Your task to perform on an android device: move an email to a new category in the gmail app Image 0: 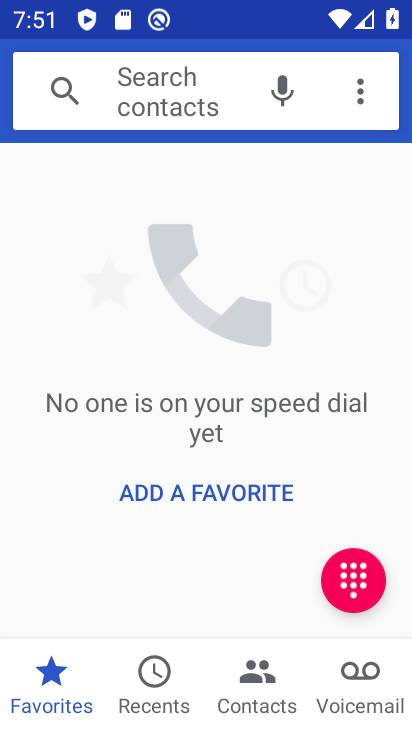
Step 0: press back button
Your task to perform on an android device: move an email to a new category in the gmail app Image 1: 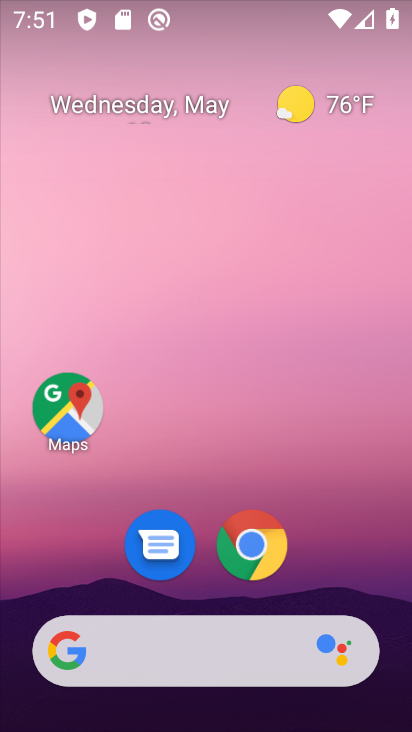
Step 1: drag from (331, 708) to (70, 21)
Your task to perform on an android device: move an email to a new category in the gmail app Image 2: 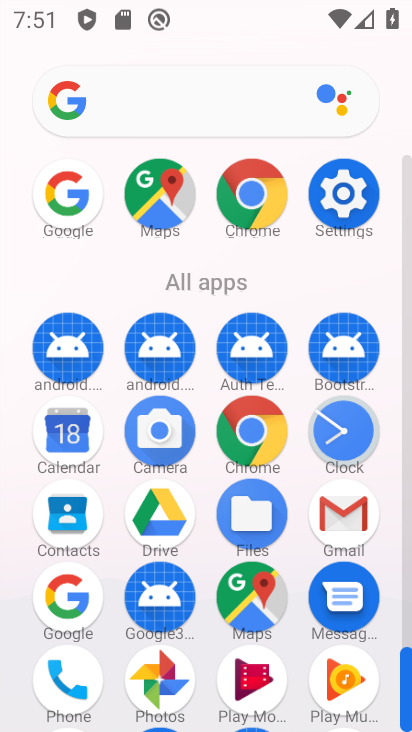
Step 2: click (336, 513)
Your task to perform on an android device: move an email to a new category in the gmail app Image 3: 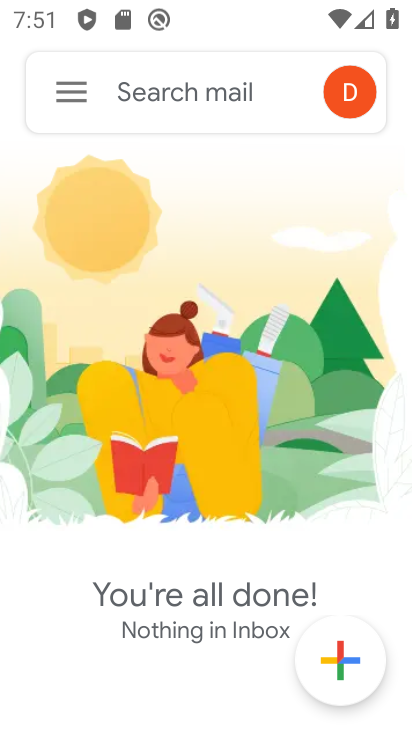
Step 3: click (55, 98)
Your task to perform on an android device: move an email to a new category in the gmail app Image 4: 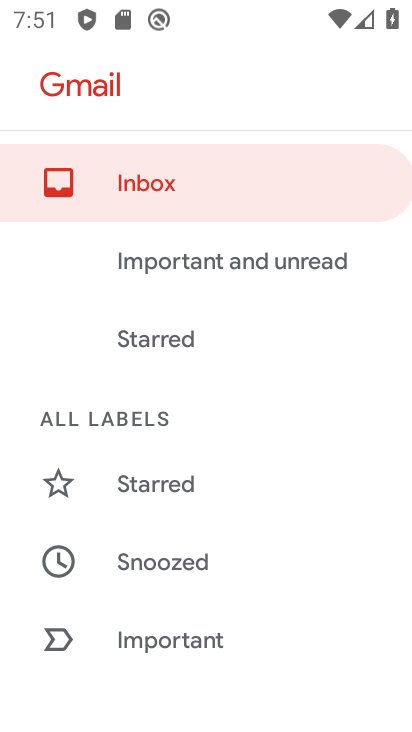
Step 4: drag from (164, 567) to (258, 179)
Your task to perform on an android device: move an email to a new category in the gmail app Image 5: 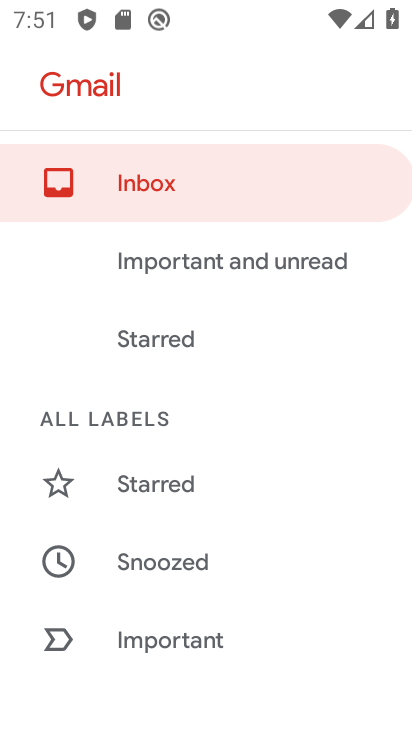
Step 5: drag from (275, 467) to (271, 217)
Your task to perform on an android device: move an email to a new category in the gmail app Image 6: 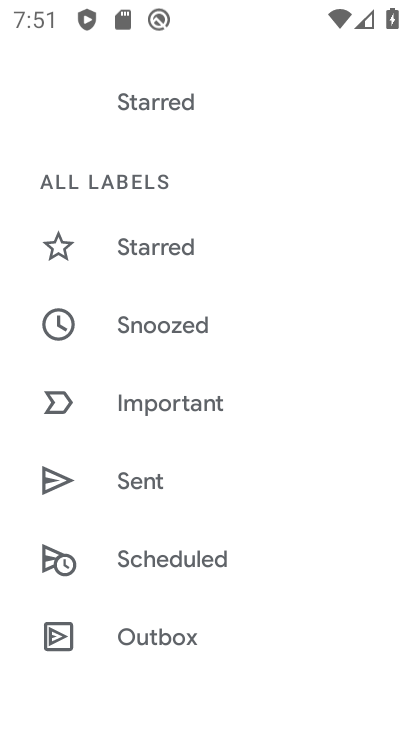
Step 6: drag from (254, 506) to (267, 132)
Your task to perform on an android device: move an email to a new category in the gmail app Image 7: 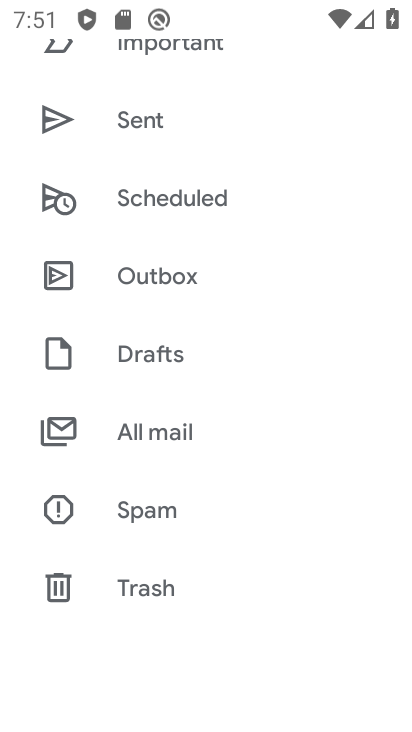
Step 7: click (141, 434)
Your task to perform on an android device: move an email to a new category in the gmail app Image 8: 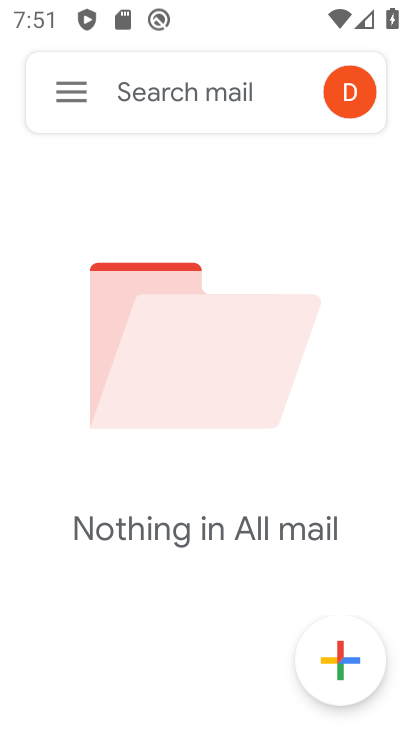
Step 8: task complete